Your task to perform on an android device: Go to Amazon Image 0: 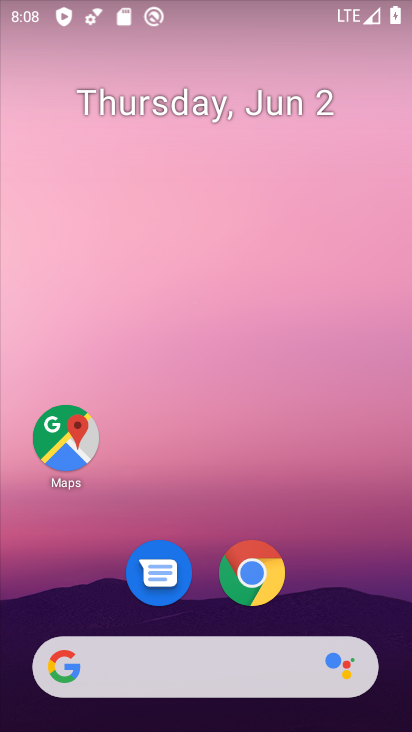
Step 0: drag from (389, 570) to (378, 133)
Your task to perform on an android device: Go to Amazon Image 1: 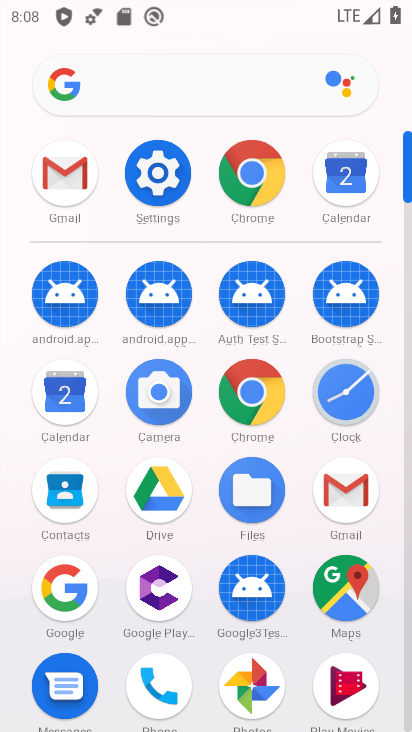
Step 1: click (250, 168)
Your task to perform on an android device: Go to Amazon Image 2: 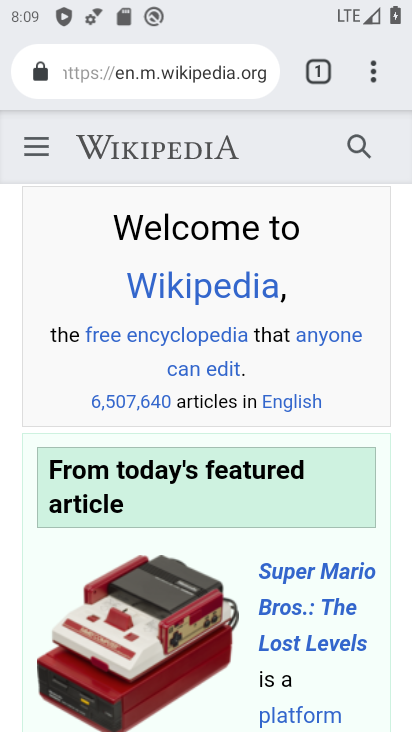
Step 2: click (155, 61)
Your task to perform on an android device: Go to Amazon Image 3: 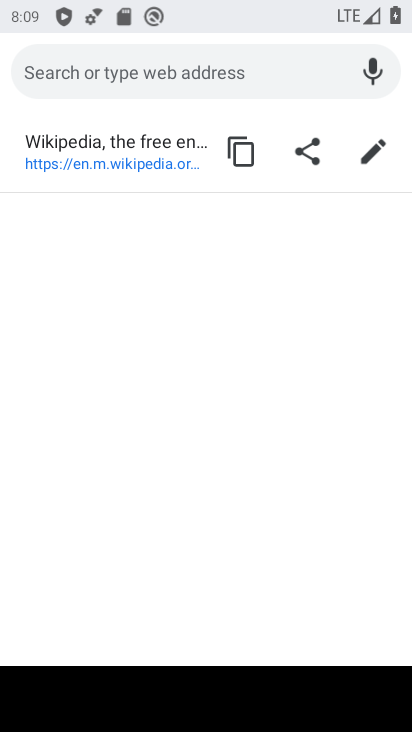
Step 3: type "amazon"
Your task to perform on an android device: Go to Amazon Image 4: 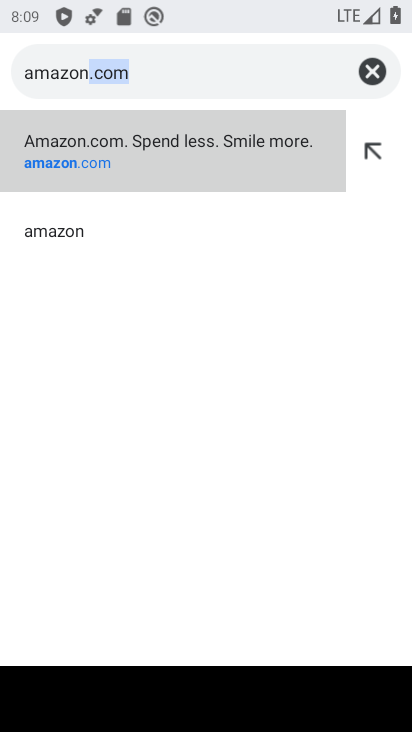
Step 4: click (52, 142)
Your task to perform on an android device: Go to Amazon Image 5: 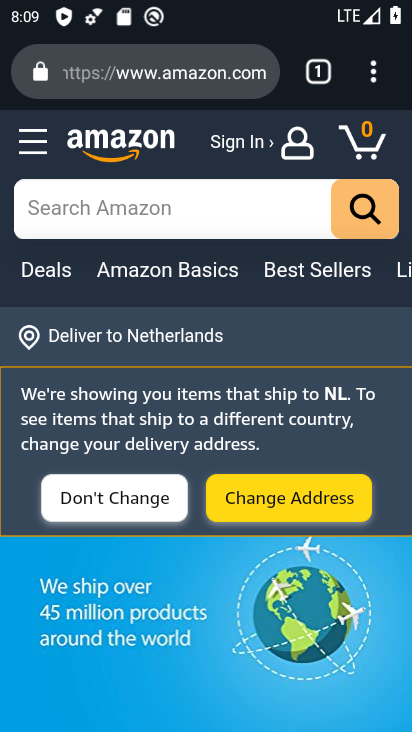
Step 5: task complete